Your task to perform on an android device: Open location settings Image 0: 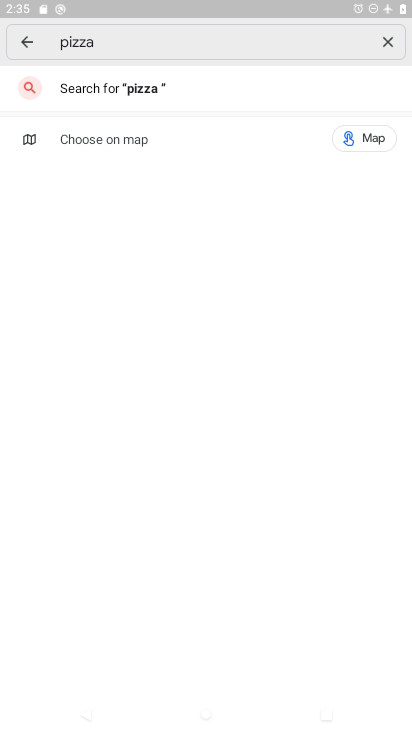
Step 0: press home button
Your task to perform on an android device: Open location settings Image 1: 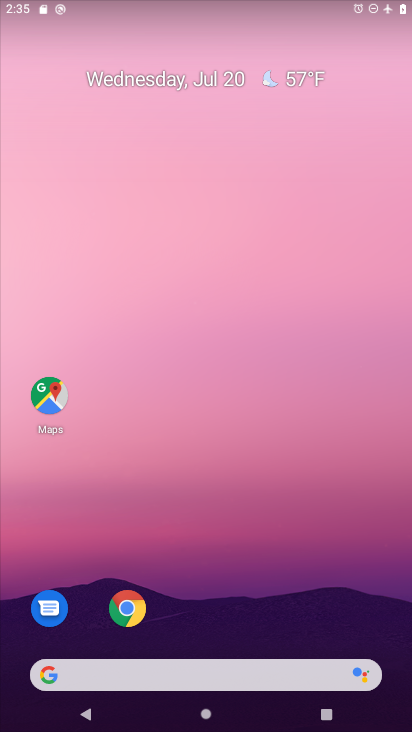
Step 1: drag from (241, 709) to (324, 0)
Your task to perform on an android device: Open location settings Image 2: 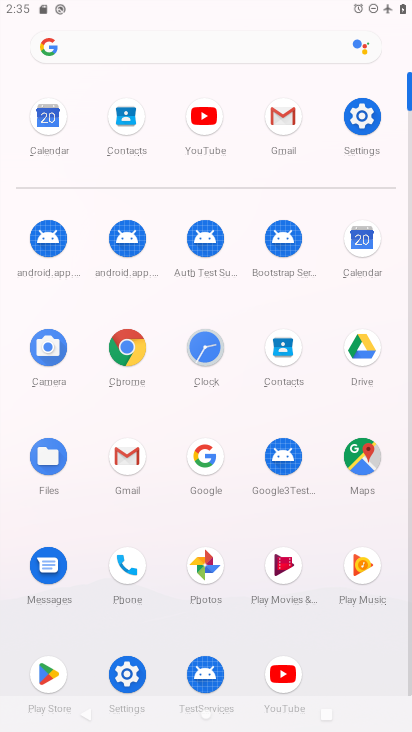
Step 2: click (368, 119)
Your task to perform on an android device: Open location settings Image 3: 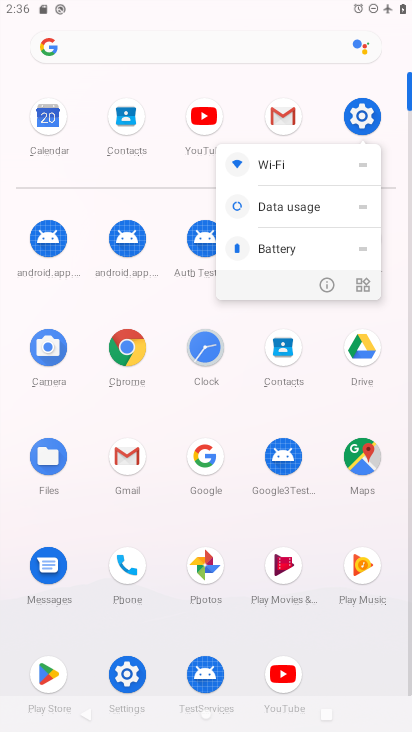
Step 3: click (370, 115)
Your task to perform on an android device: Open location settings Image 4: 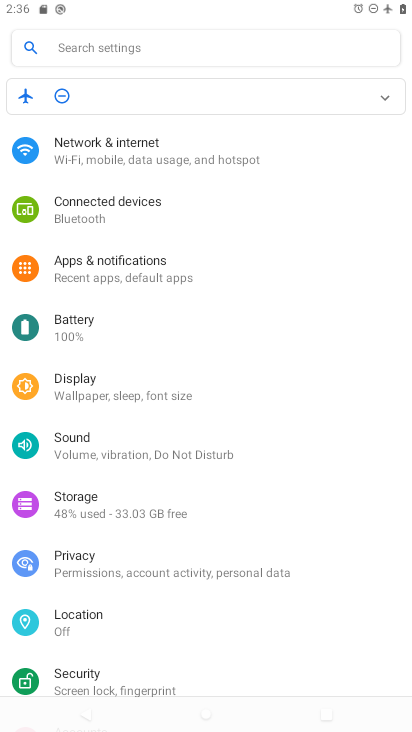
Step 4: click (93, 616)
Your task to perform on an android device: Open location settings Image 5: 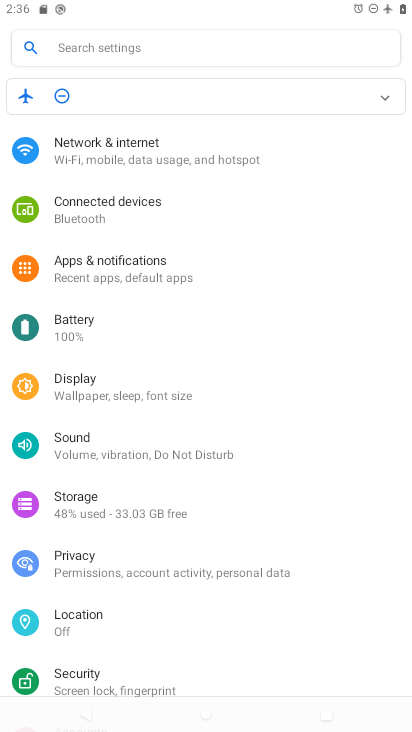
Step 5: click (93, 616)
Your task to perform on an android device: Open location settings Image 6: 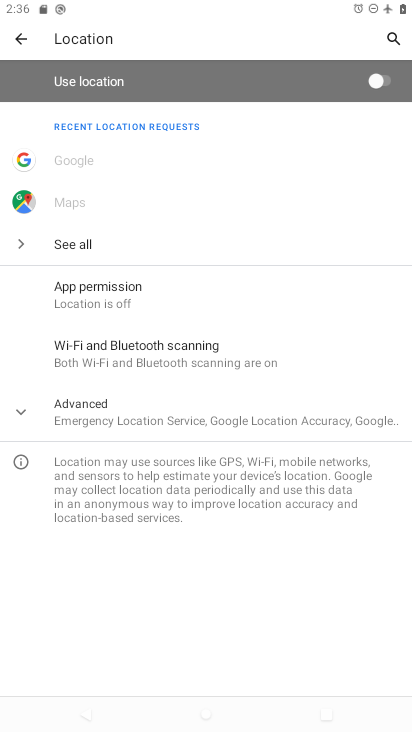
Step 6: task complete